Your task to perform on an android device: find photos in the google photos app Image 0: 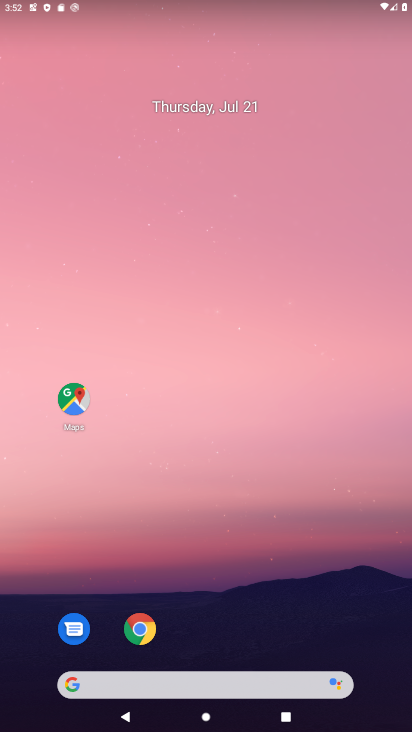
Step 0: drag from (354, 638) to (227, 25)
Your task to perform on an android device: find photos in the google photos app Image 1: 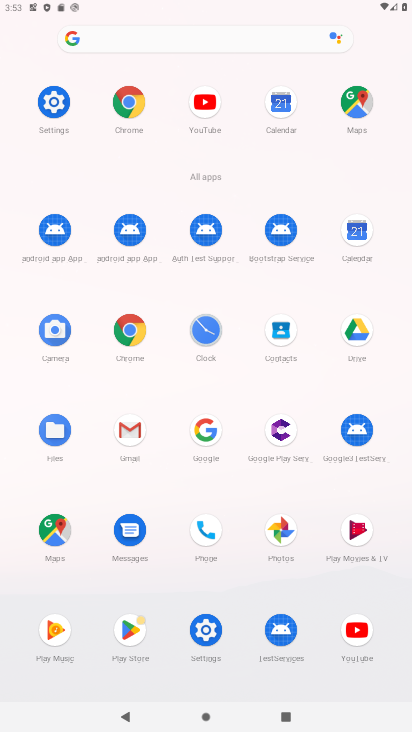
Step 1: click (282, 533)
Your task to perform on an android device: find photos in the google photos app Image 2: 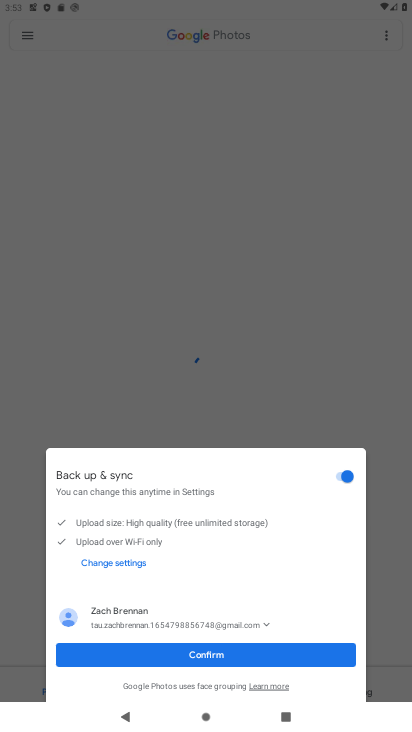
Step 2: click (258, 659)
Your task to perform on an android device: find photos in the google photos app Image 3: 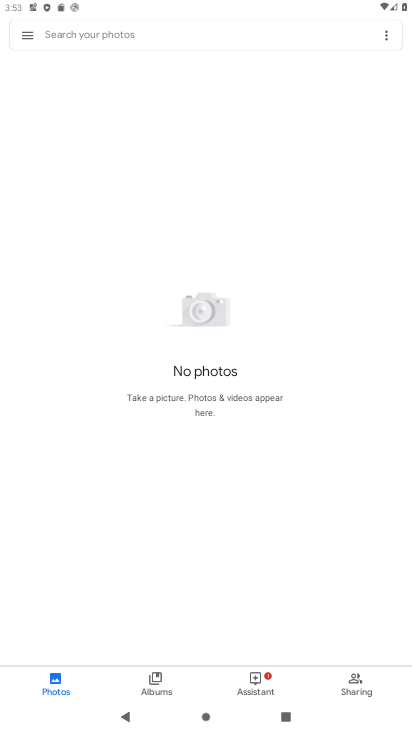
Step 3: task complete